Your task to perform on an android device: Search for seafood restaurants on Google Maps Image 0: 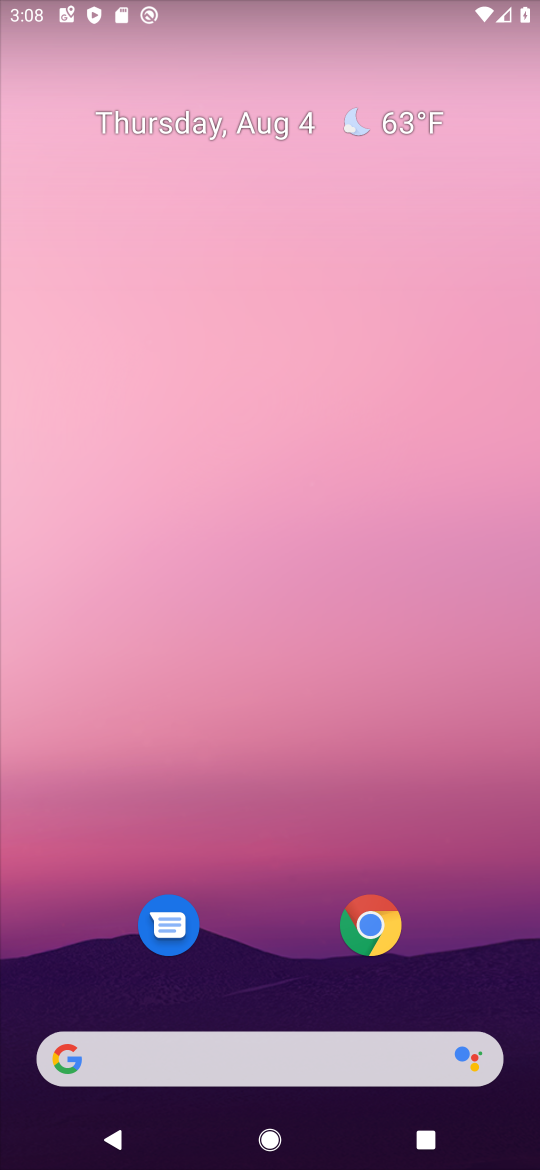
Step 0: drag from (273, 925) to (278, 152)
Your task to perform on an android device: Search for seafood restaurants on Google Maps Image 1: 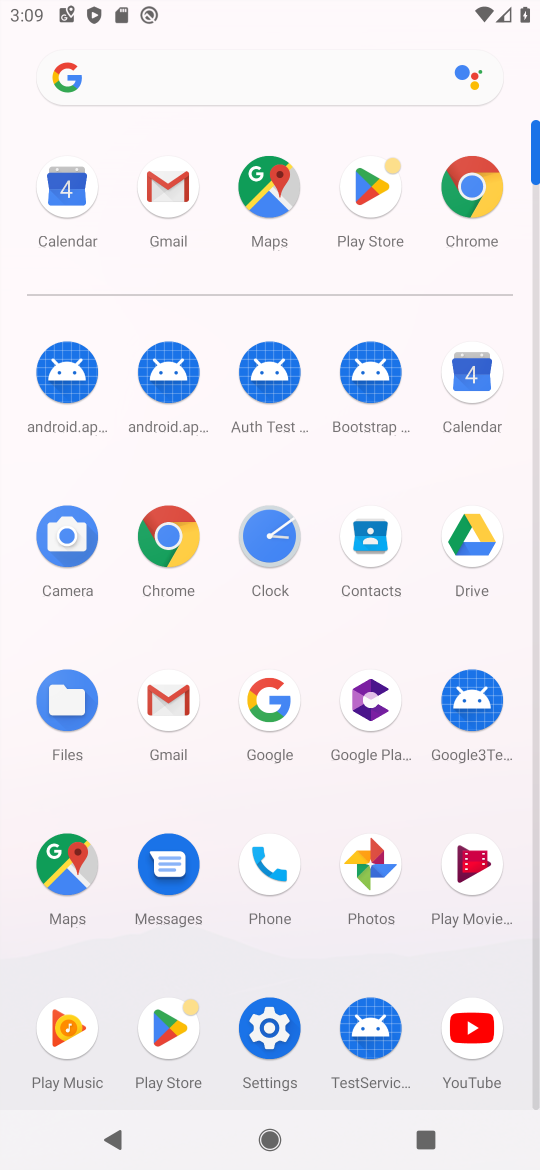
Step 1: click (269, 186)
Your task to perform on an android device: Search for seafood restaurants on Google Maps Image 2: 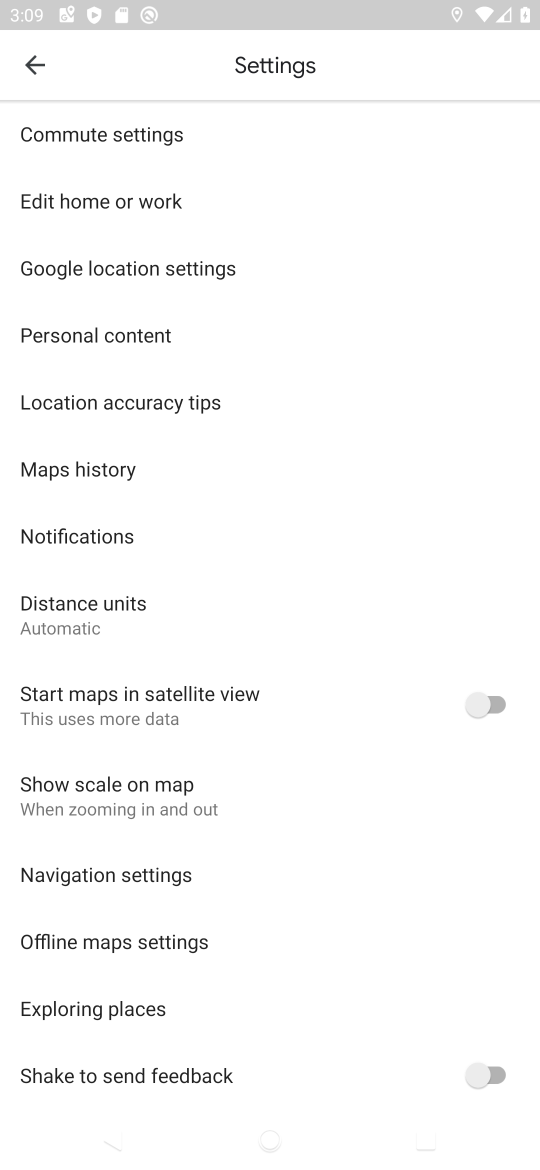
Step 2: click (34, 55)
Your task to perform on an android device: Search for seafood restaurants on Google Maps Image 3: 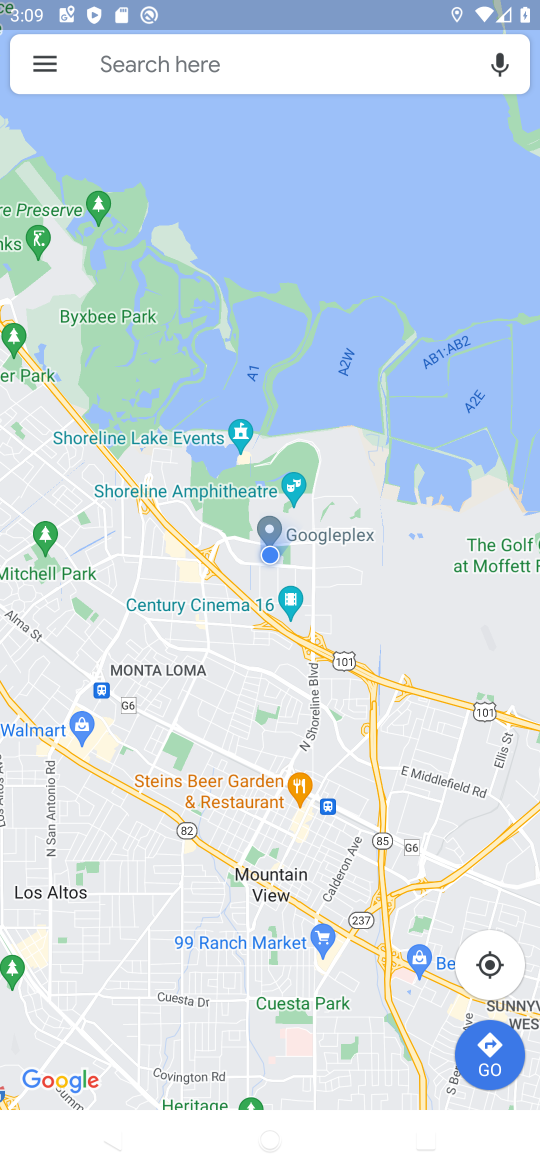
Step 3: click (34, 55)
Your task to perform on an android device: Search for seafood restaurants on Google Maps Image 4: 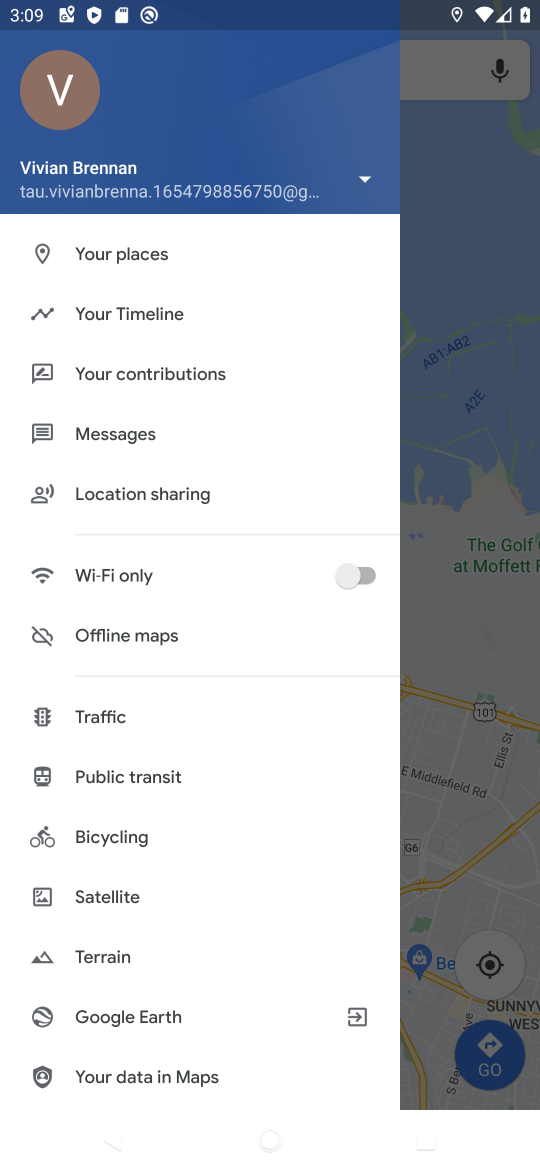
Step 4: click (428, 170)
Your task to perform on an android device: Search for seafood restaurants on Google Maps Image 5: 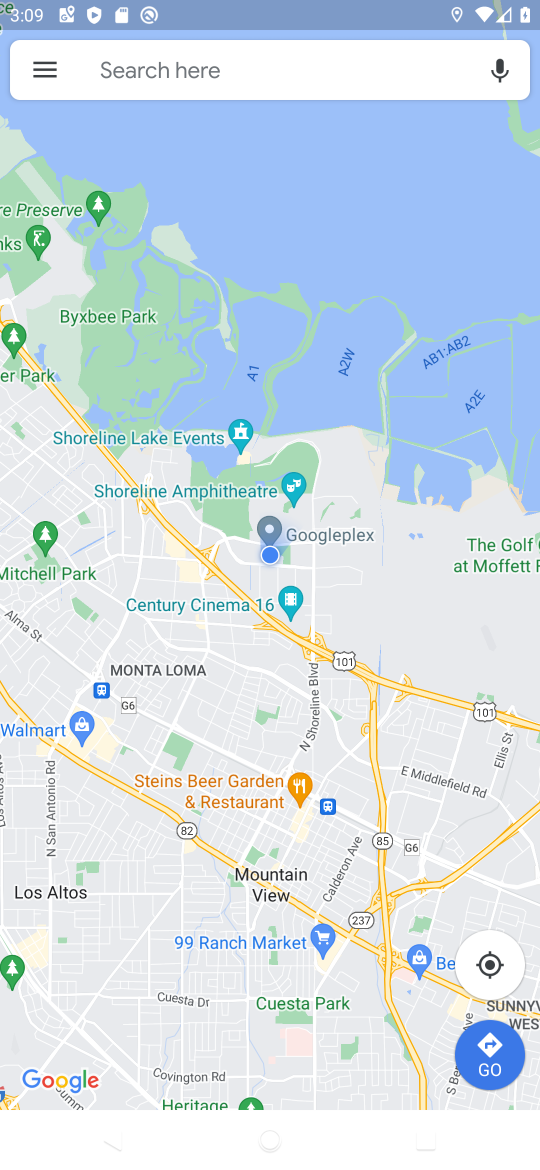
Step 5: click (413, 83)
Your task to perform on an android device: Search for seafood restaurants on Google Maps Image 6: 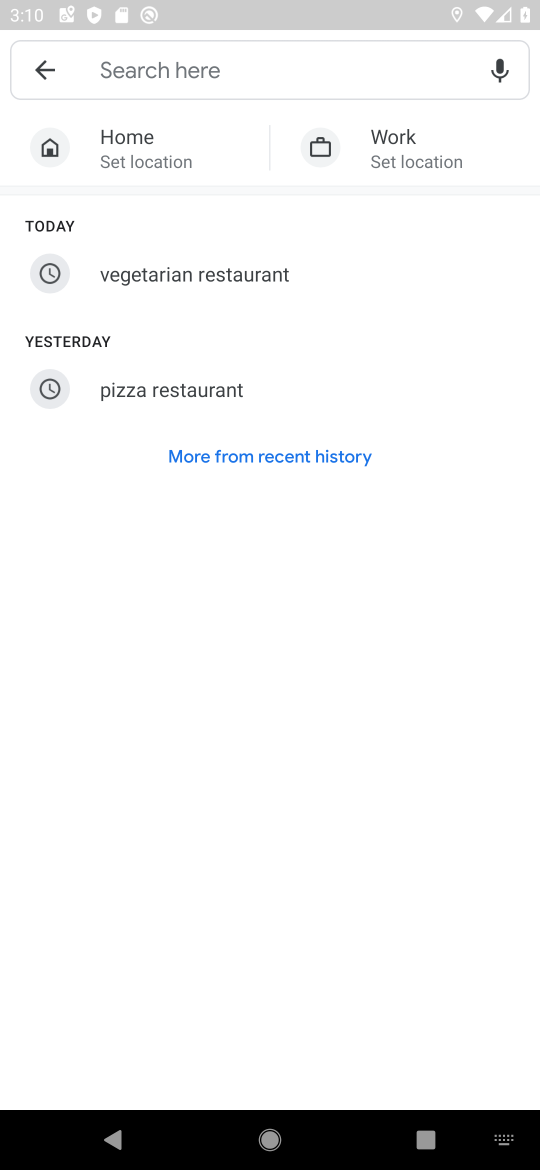
Step 6: type "seafood restaurants"
Your task to perform on an android device: Search for seafood restaurants on Google Maps Image 7: 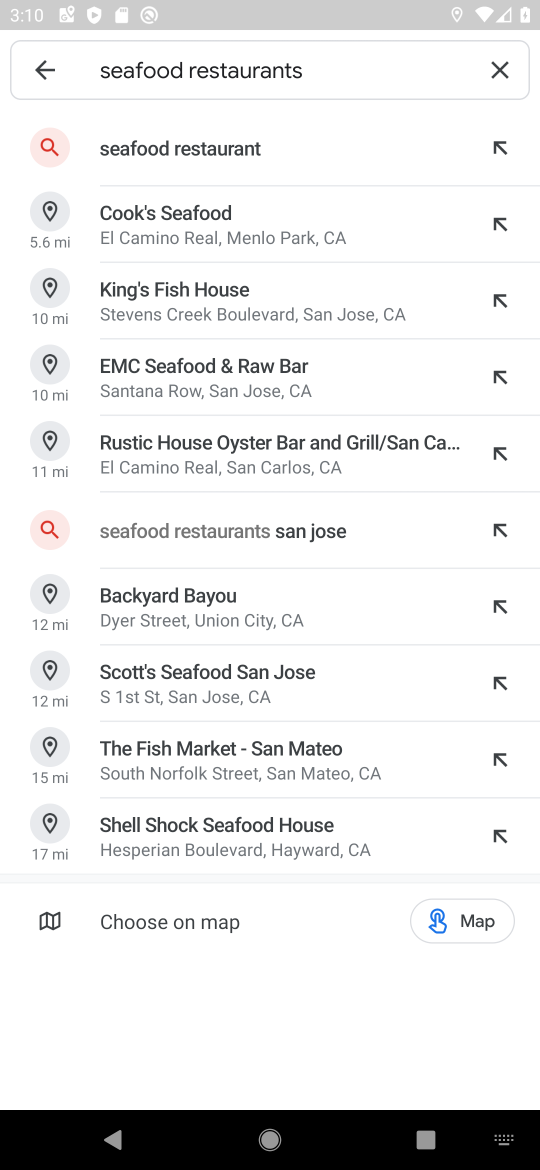
Step 7: click (225, 151)
Your task to perform on an android device: Search for seafood restaurants on Google Maps Image 8: 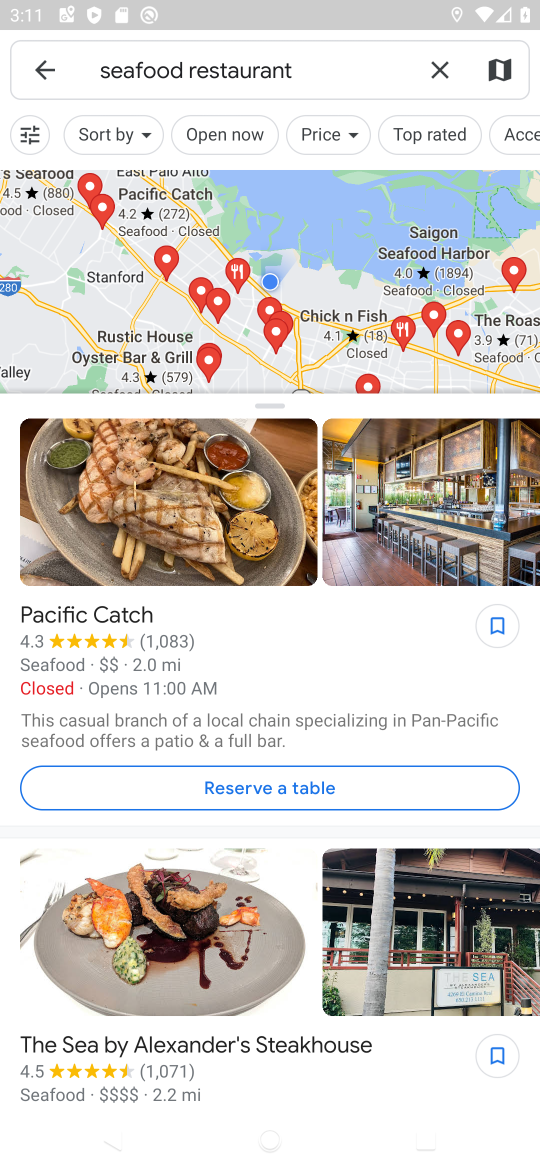
Step 8: task complete